Your task to perform on an android device: add a label to a message in the gmail app Image 0: 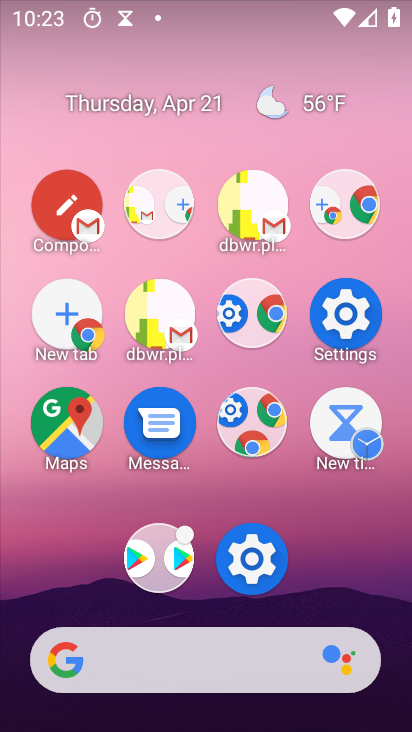
Step 0: drag from (350, 560) to (228, 27)
Your task to perform on an android device: add a label to a message in the gmail app Image 1: 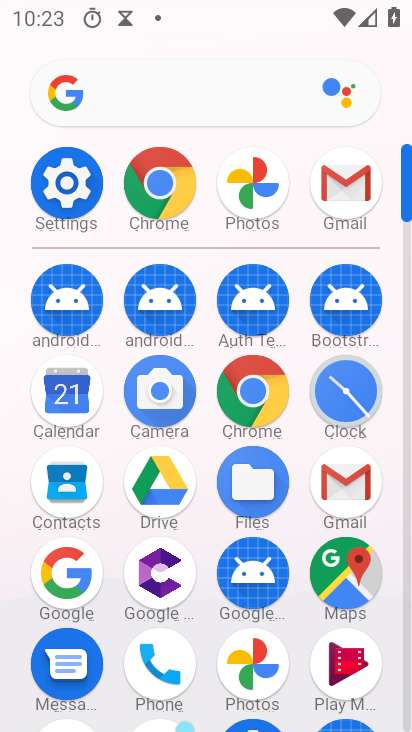
Step 1: click (350, 487)
Your task to perform on an android device: add a label to a message in the gmail app Image 2: 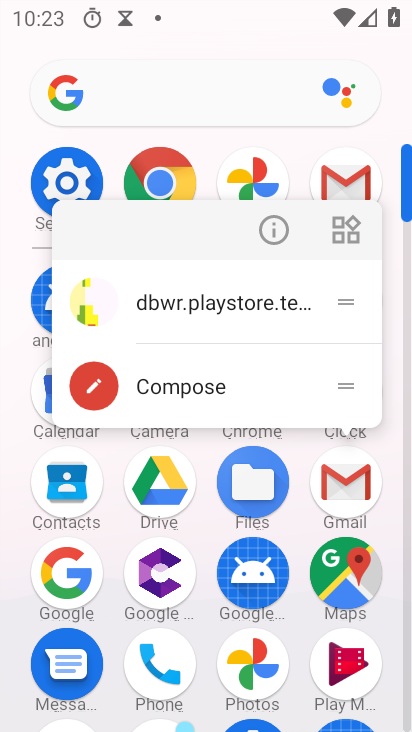
Step 2: click (350, 487)
Your task to perform on an android device: add a label to a message in the gmail app Image 3: 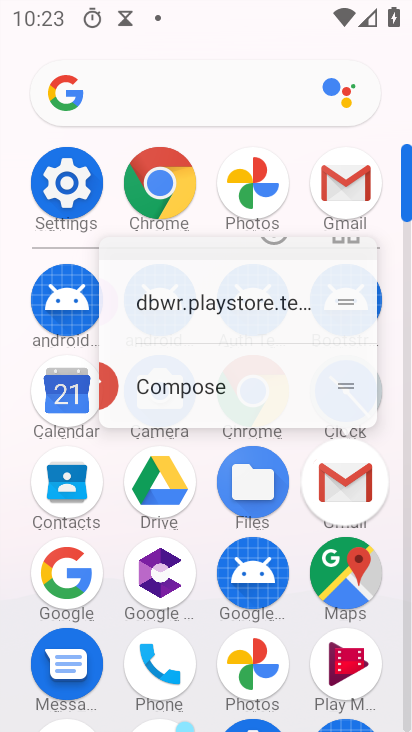
Step 3: click (350, 487)
Your task to perform on an android device: add a label to a message in the gmail app Image 4: 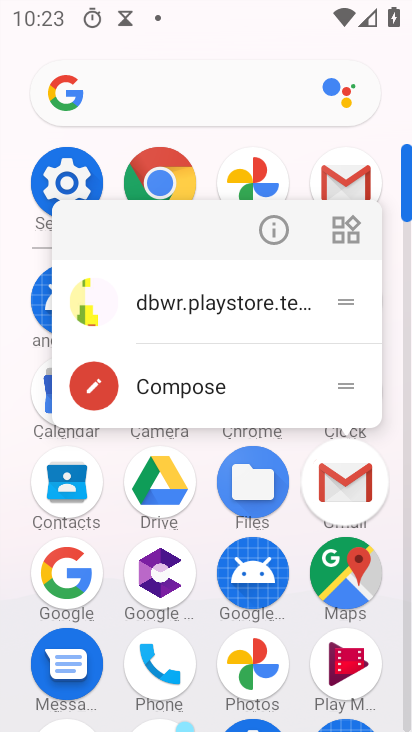
Step 4: click (350, 487)
Your task to perform on an android device: add a label to a message in the gmail app Image 5: 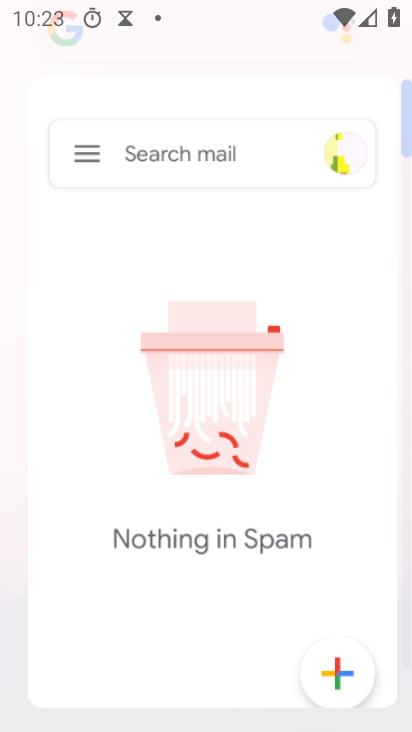
Step 5: click (182, 301)
Your task to perform on an android device: add a label to a message in the gmail app Image 6: 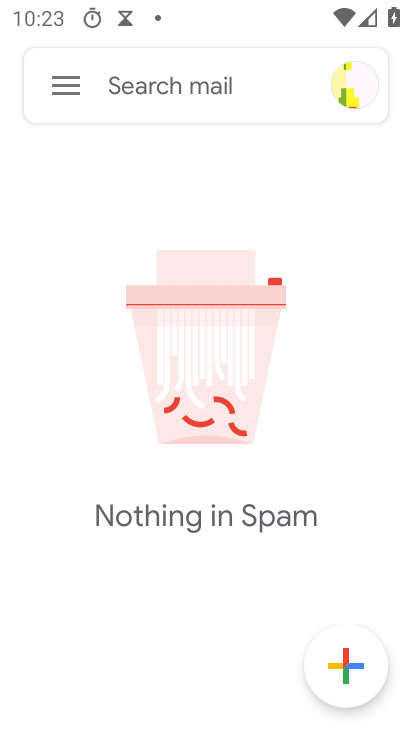
Step 6: click (64, 83)
Your task to perform on an android device: add a label to a message in the gmail app Image 7: 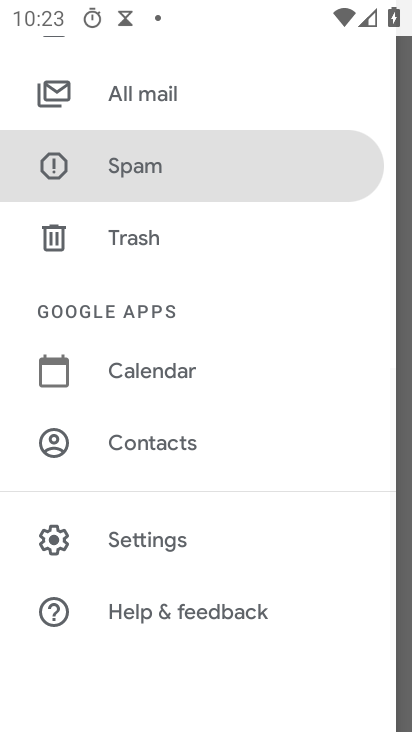
Step 7: click (147, 94)
Your task to perform on an android device: add a label to a message in the gmail app Image 8: 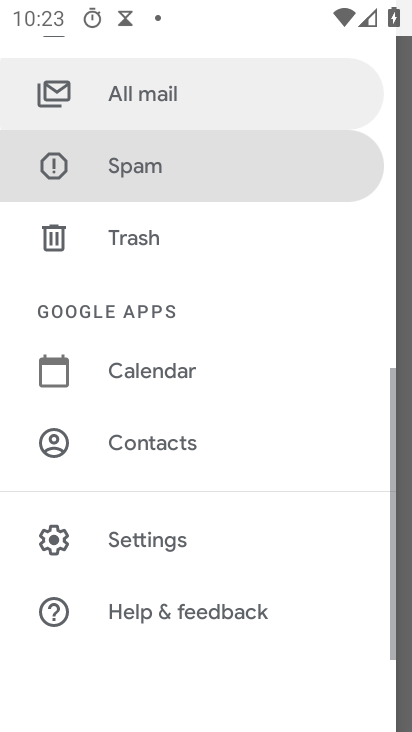
Step 8: click (147, 94)
Your task to perform on an android device: add a label to a message in the gmail app Image 9: 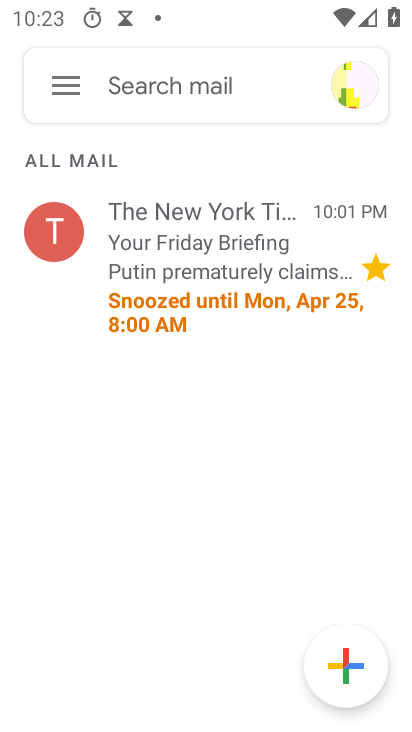
Step 9: click (374, 268)
Your task to perform on an android device: add a label to a message in the gmail app Image 10: 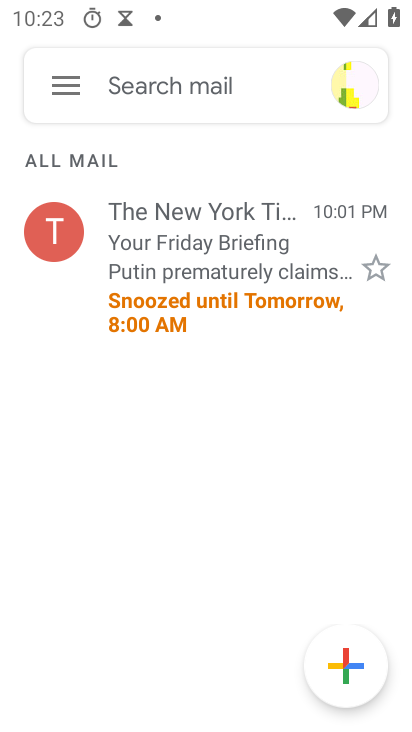
Step 10: task complete